Your task to perform on an android device: Go to notification settings Image 0: 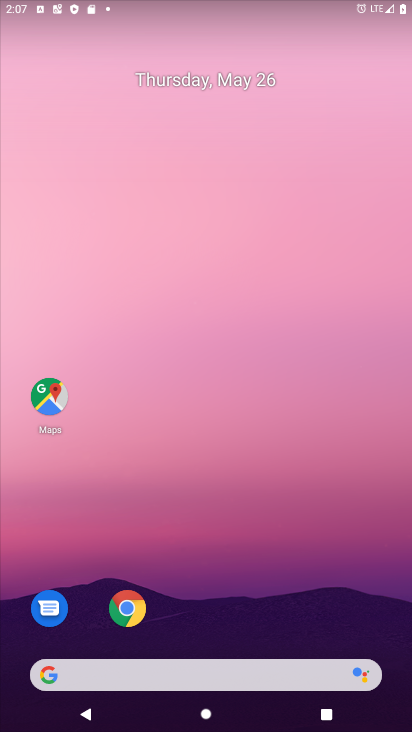
Step 0: drag from (337, 629) to (287, 269)
Your task to perform on an android device: Go to notification settings Image 1: 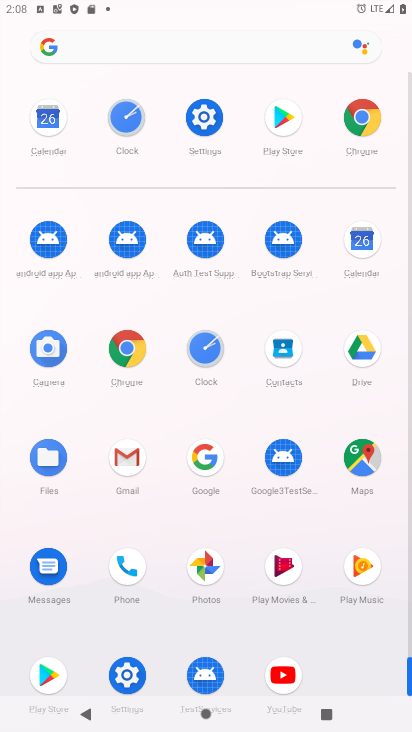
Step 1: click (126, 676)
Your task to perform on an android device: Go to notification settings Image 2: 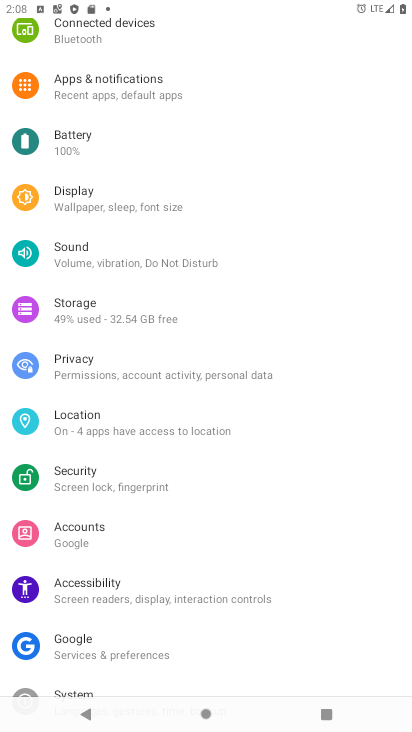
Step 2: click (134, 90)
Your task to perform on an android device: Go to notification settings Image 3: 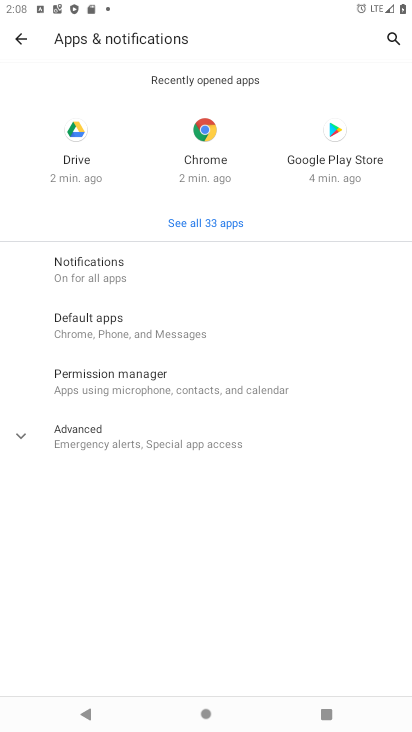
Step 3: click (108, 265)
Your task to perform on an android device: Go to notification settings Image 4: 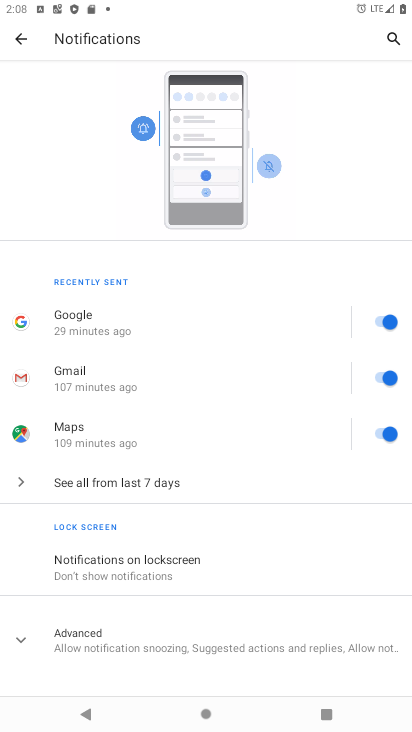
Step 4: drag from (174, 564) to (233, 246)
Your task to perform on an android device: Go to notification settings Image 5: 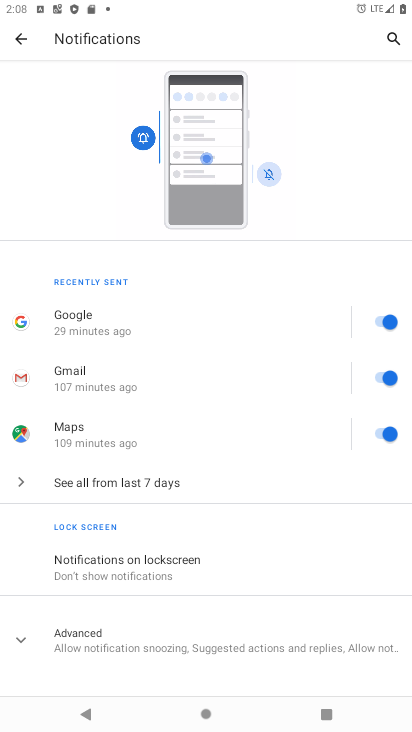
Step 5: click (33, 634)
Your task to perform on an android device: Go to notification settings Image 6: 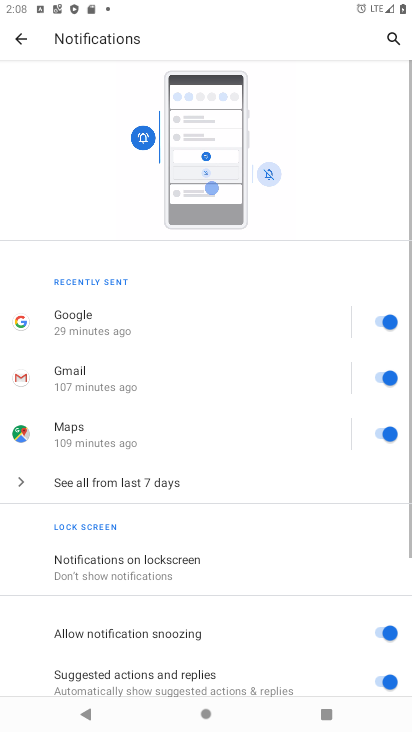
Step 6: task complete